Your task to perform on an android device: What's the weather going to be this weekend? Image 0: 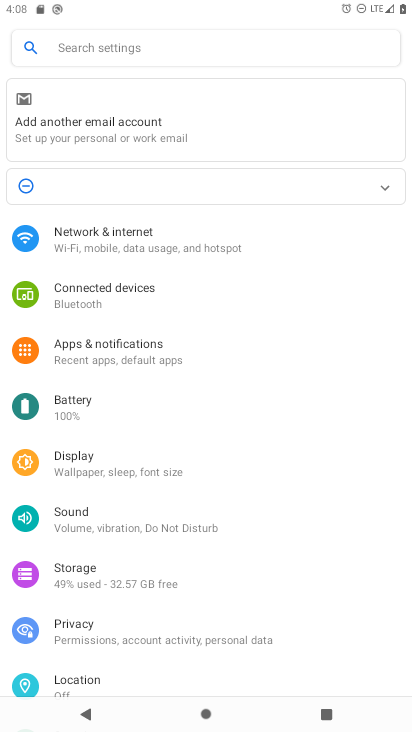
Step 0: press home button
Your task to perform on an android device: What's the weather going to be this weekend? Image 1: 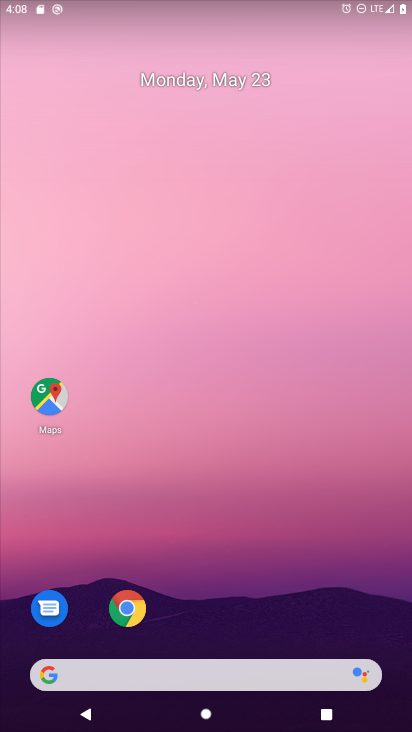
Step 1: drag from (292, 621) to (211, 13)
Your task to perform on an android device: What's the weather going to be this weekend? Image 2: 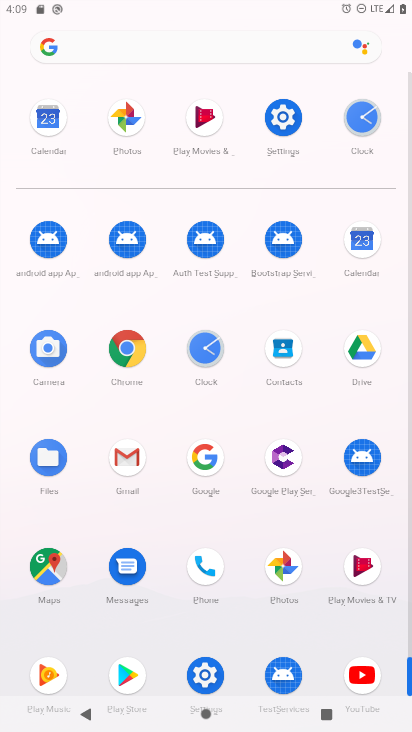
Step 2: click (200, 455)
Your task to perform on an android device: What's the weather going to be this weekend? Image 3: 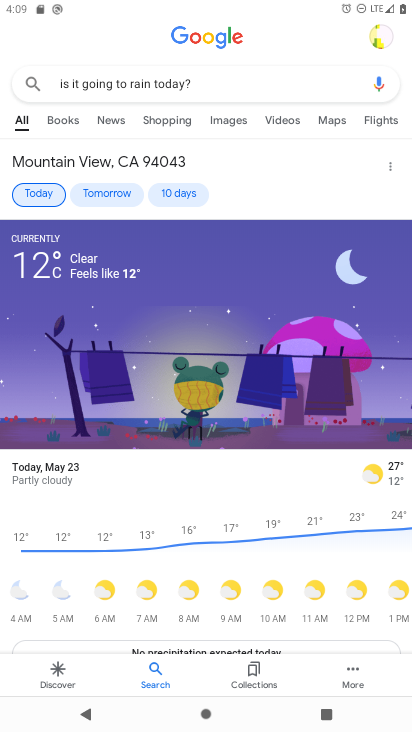
Step 3: click (184, 198)
Your task to perform on an android device: What's the weather going to be this weekend? Image 4: 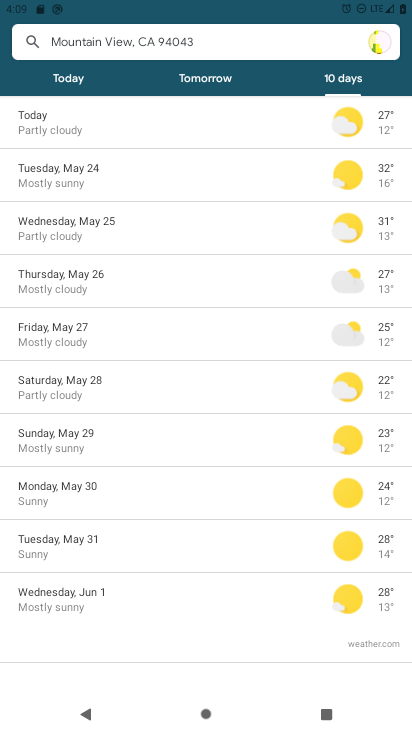
Step 4: task complete